Your task to perform on an android device: toggle priority inbox in the gmail app Image 0: 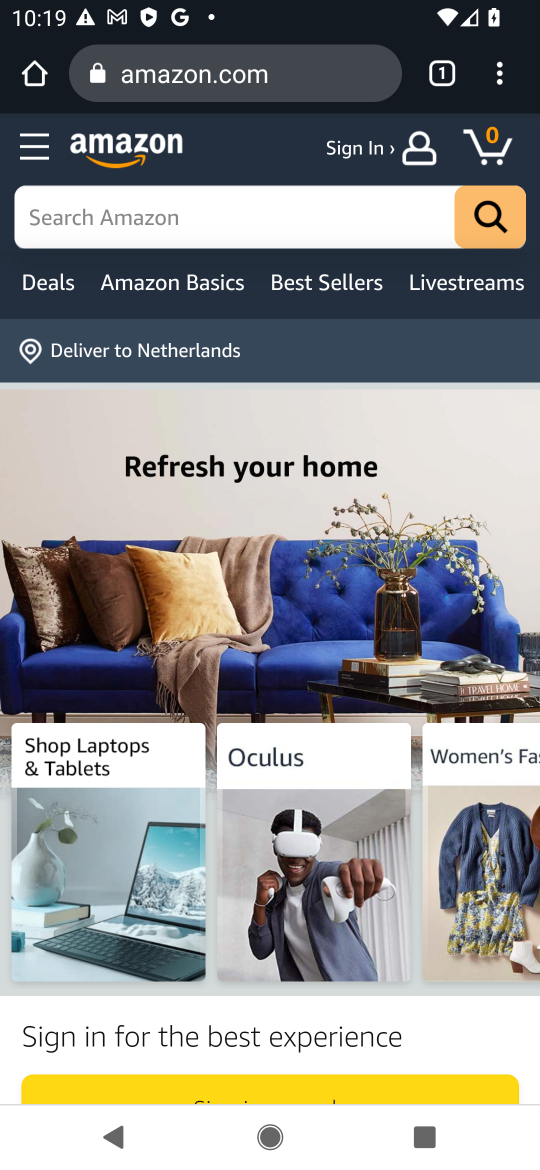
Step 0: press home button
Your task to perform on an android device: toggle priority inbox in the gmail app Image 1: 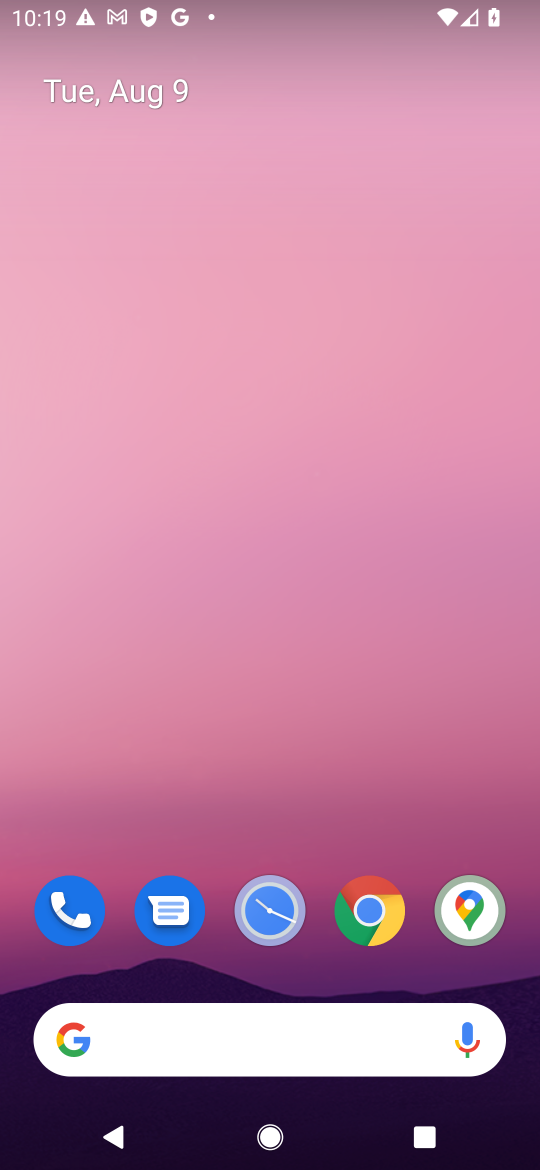
Step 1: drag from (45, 791) to (282, 10)
Your task to perform on an android device: toggle priority inbox in the gmail app Image 2: 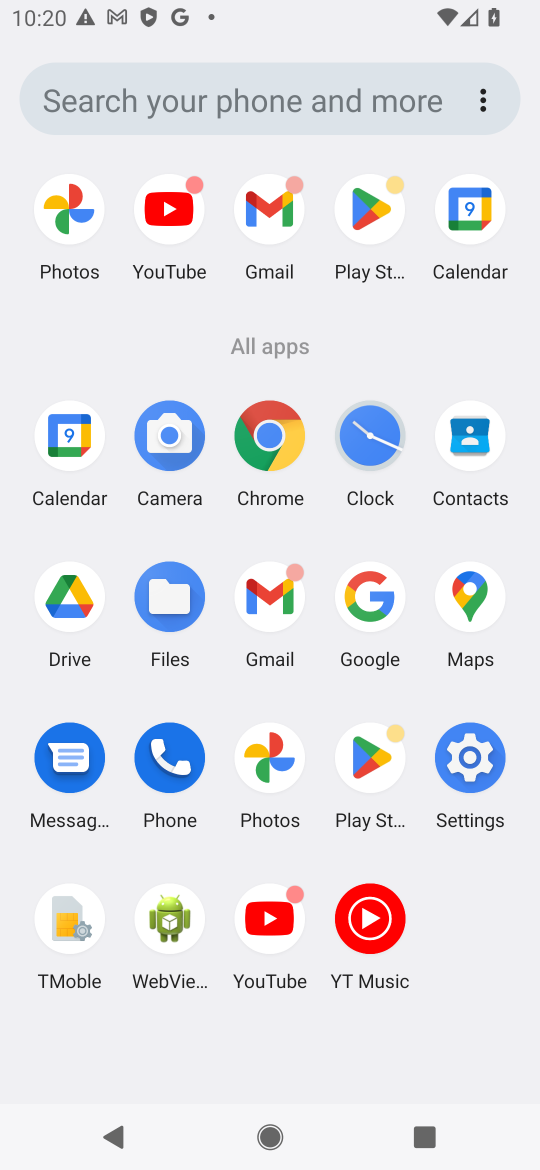
Step 2: click (268, 606)
Your task to perform on an android device: toggle priority inbox in the gmail app Image 3: 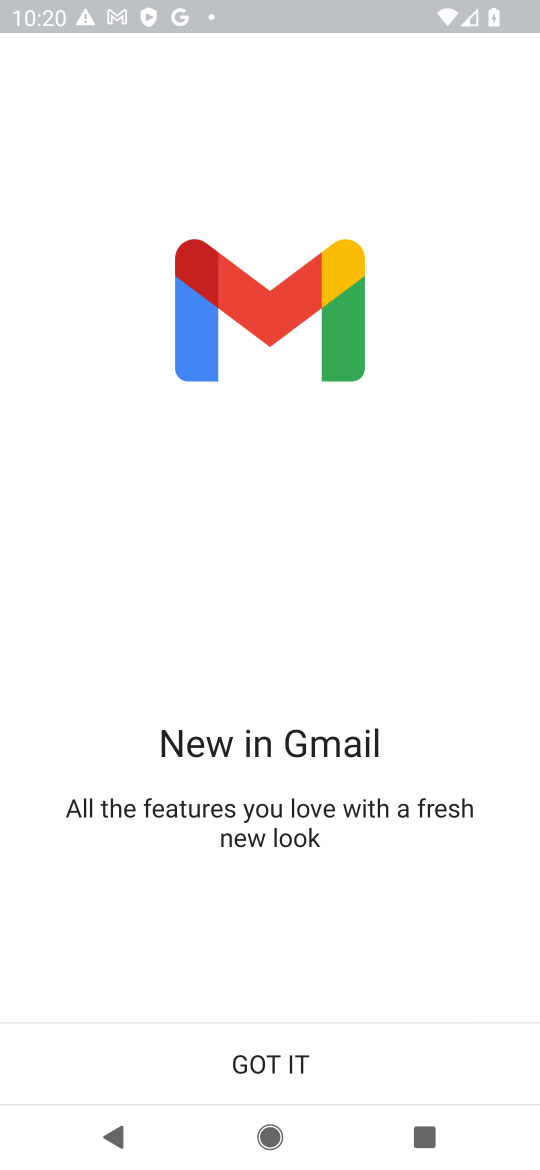
Step 3: click (274, 1048)
Your task to perform on an android device: toggle priority inbox in the gmail app Image 4: 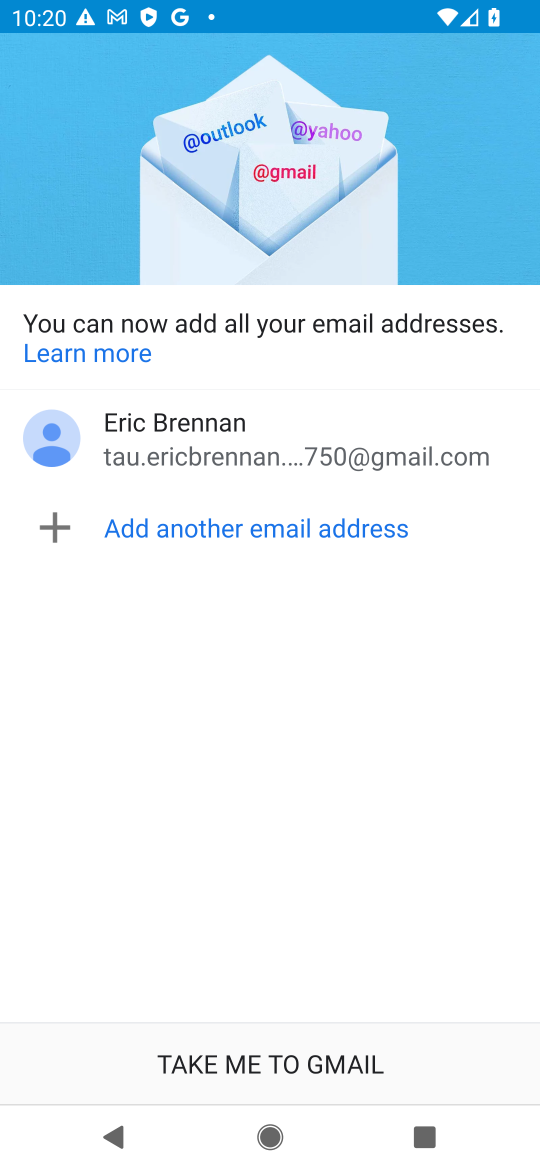
Step 4: click (281, 1072)
Your task to perform on an android device: toggle priority inbox in the gmail app Image 5: 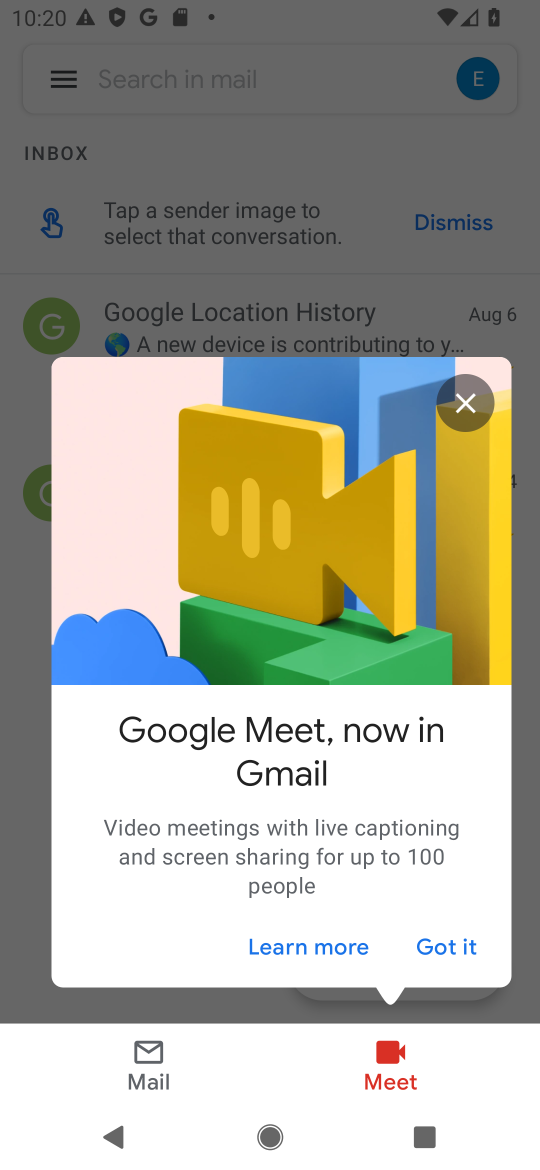
Step 5: click (440, 952)
Your task to perform on an android device: toggle priority inbox in the gmail app Image 6: 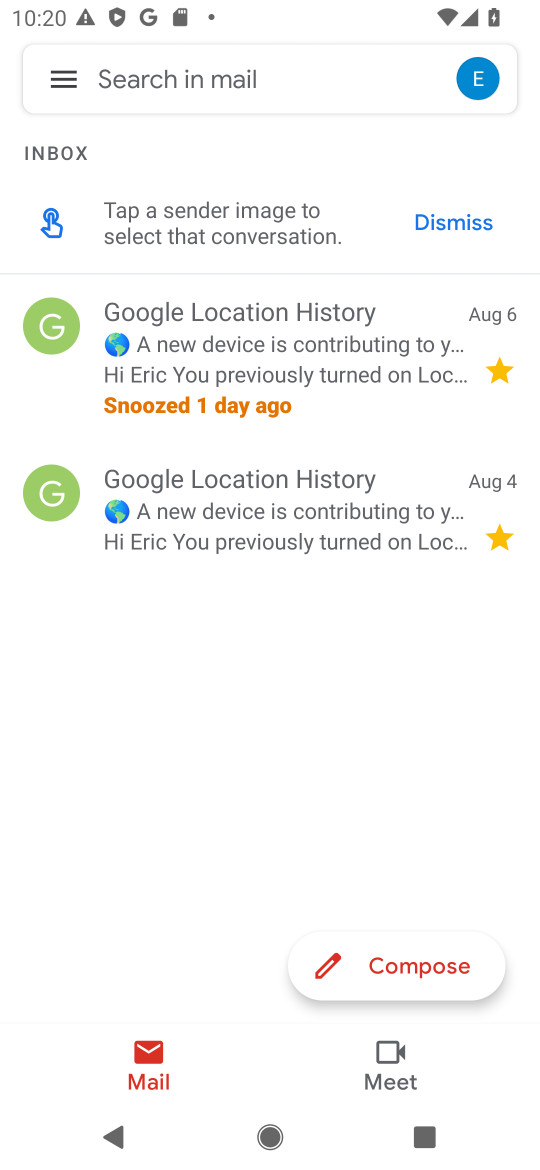
Step 6: click (74, 82)
Your task to perform on an android device: toggle priority inbox in the gmail app Image 7: 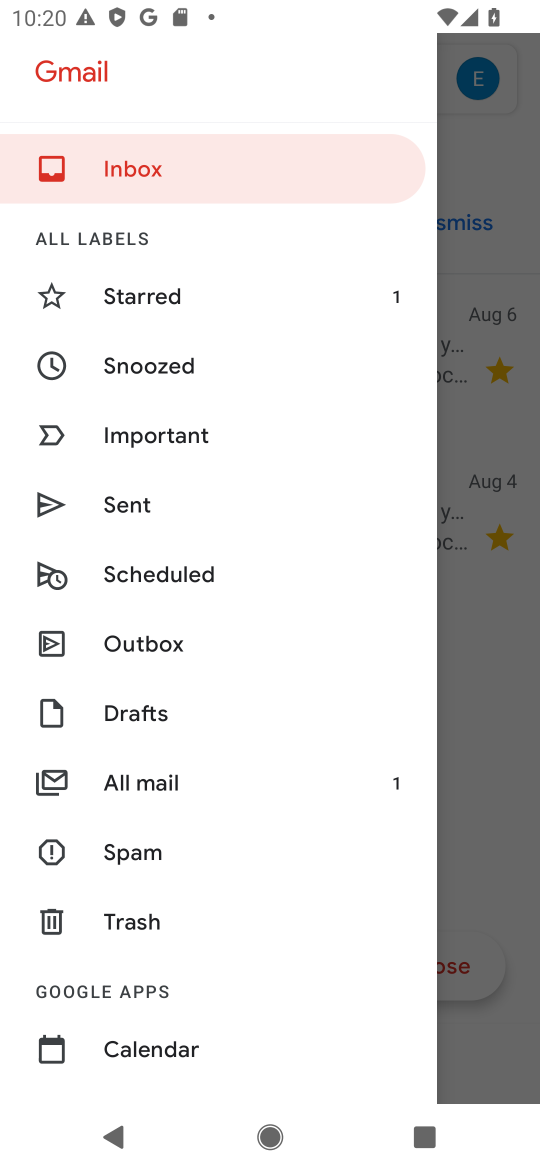
Step 7: drag from (67, 838) to (279, 108)
Your task to perform on an android device: toggle priority inbox in the gmail app Image 8: 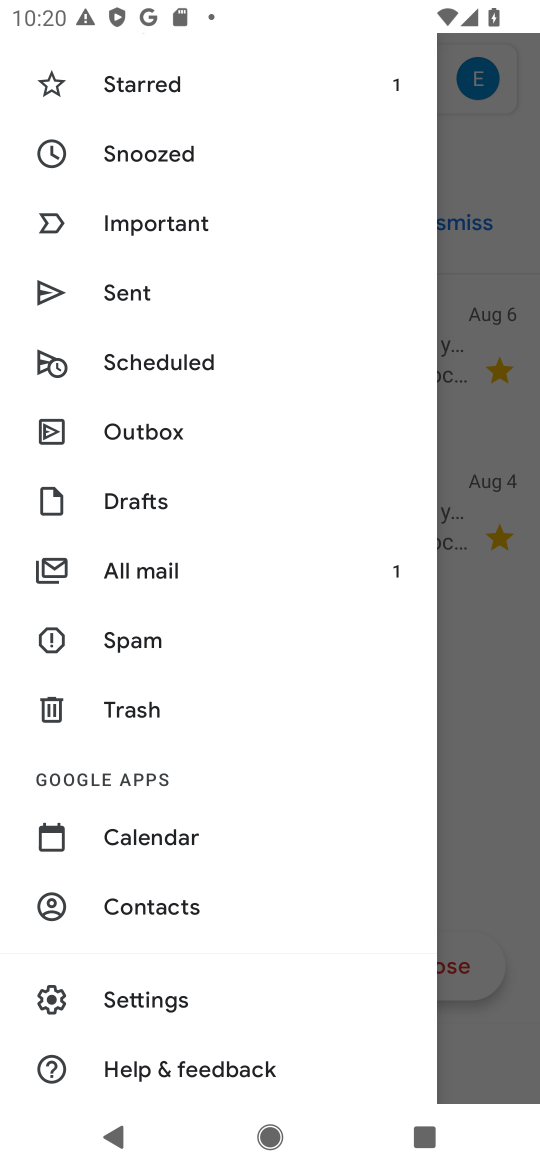
Step 8: click (181, 986)
Your task to perform on an android device: toggle priority inbox in the gmail app Image 9: 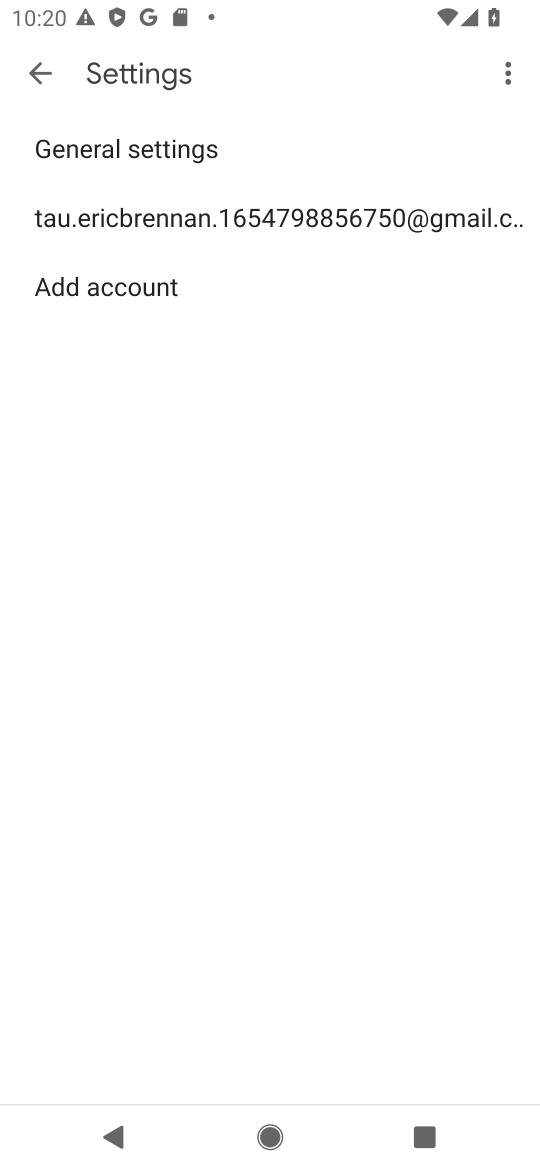
Step 9: click (113, 209)
Your task to perform on an android device: toggle priority inbox in the gmail app Image 10: 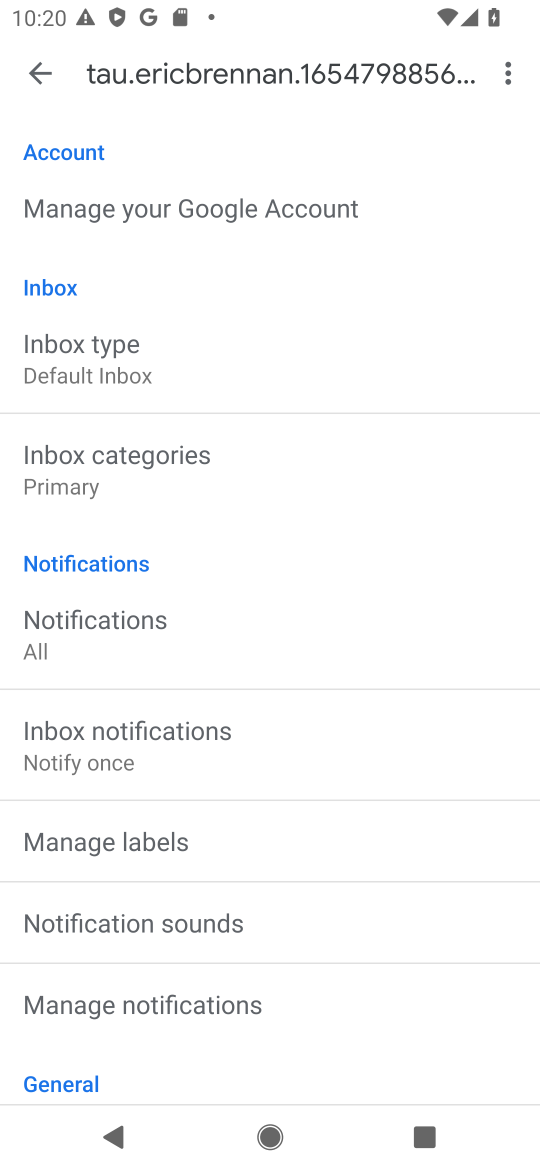
Step 10: click (80, 357)
Your task to perform on an android device: toggle priority inbox in the gmail app Image 11: 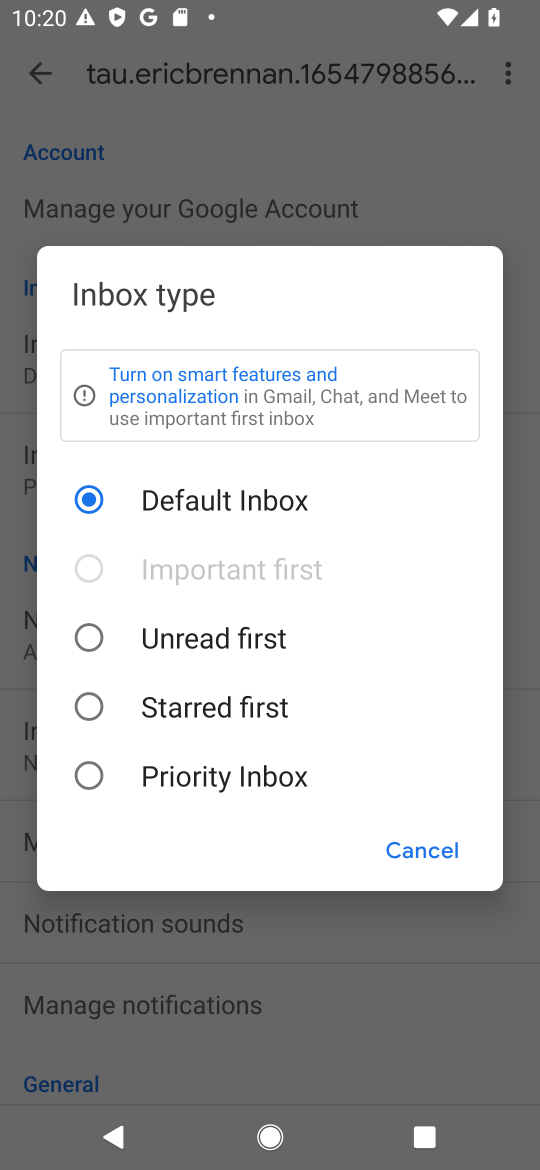
Step 11: click (181, 776)
Your task to perform on an android device: toggle priority inbox in the gmail app Image 12: 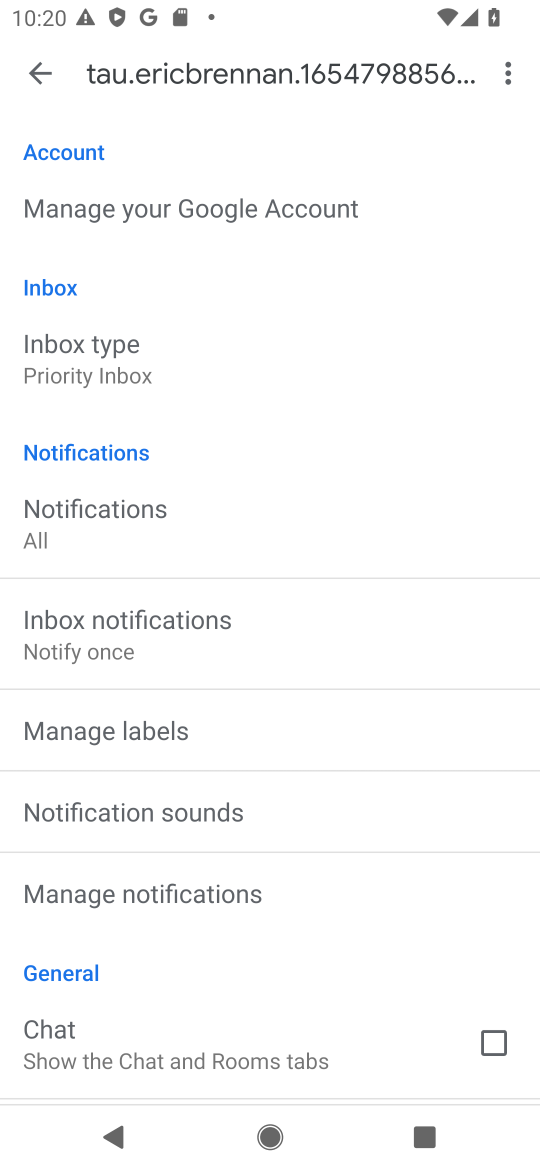
Step 12: task complete